Your task to perform on an android device: Open calendar and show me the third week of next month Image 0: 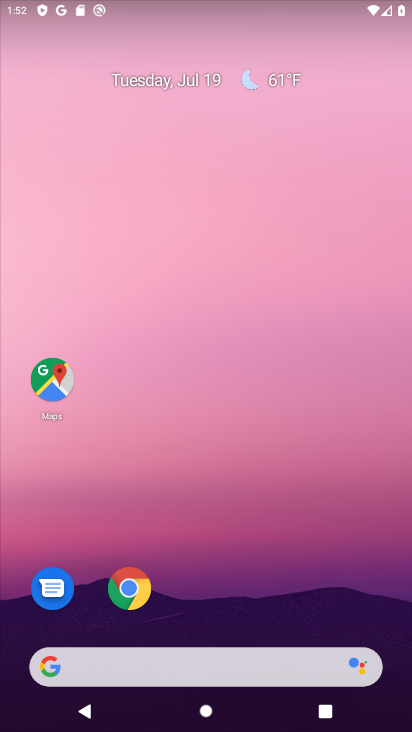
Step 0: drag from (211, 528) to (266, 0)
Your task to perform on an android device: Open calendar and show me the third week of next month Image 1: 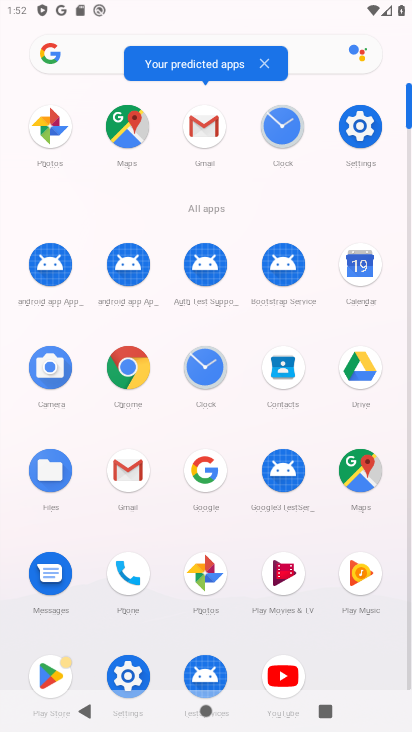
Step 1: click (351, 274)
Your task to perform on an android device: Open calendar and show me the third week of next month Image 2: 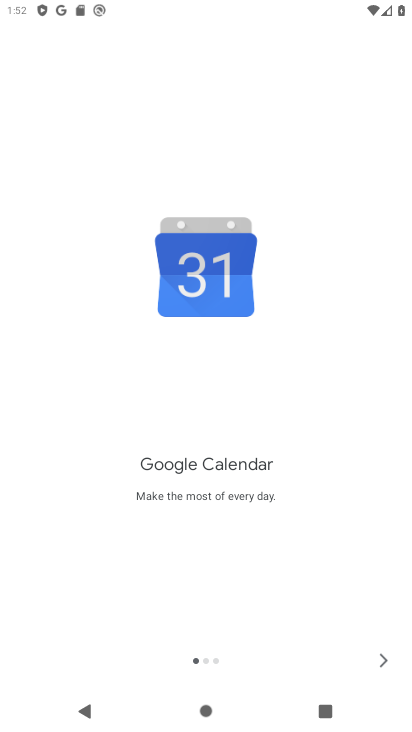
Step 2: click (390, 654)
Your task to perform on an android device: Open calendar and show me the third week of next month Image 3: 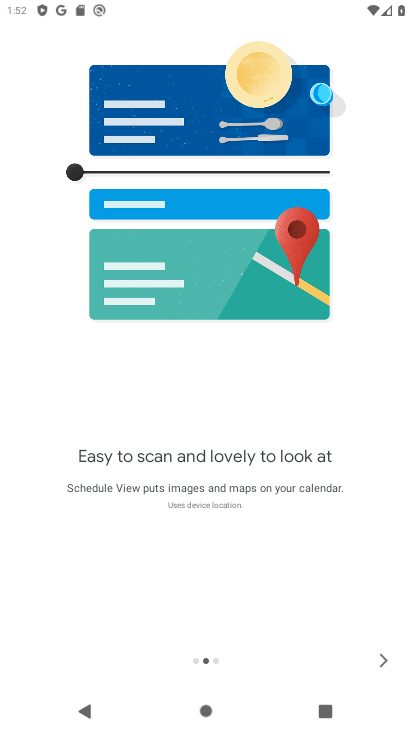
Step 3: click (381, 675)
Your task to perform on an android device: Open calendar and show me the third week of next month Image 4: 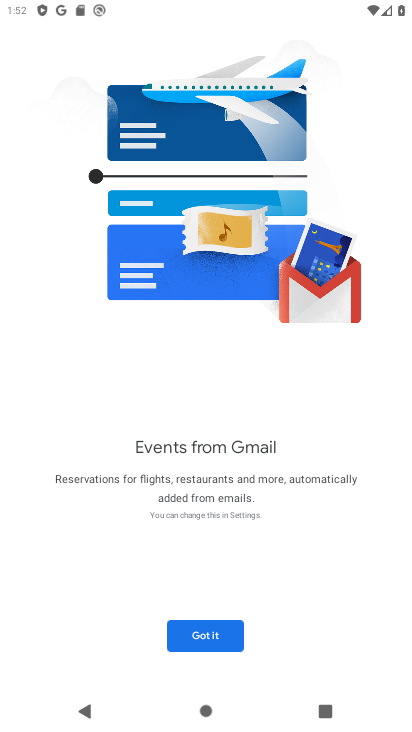
Step 4: click (207, 633)
Your task to perform on an android device: Open calendar and show me the third week of next month Image 5: 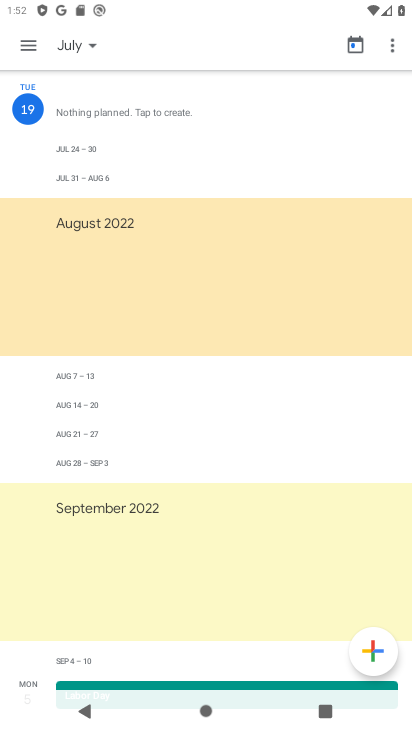
Step 5: click (87, 45)
Your task to perform on an android device: Open calendar and show me the third week of next month Image 6: 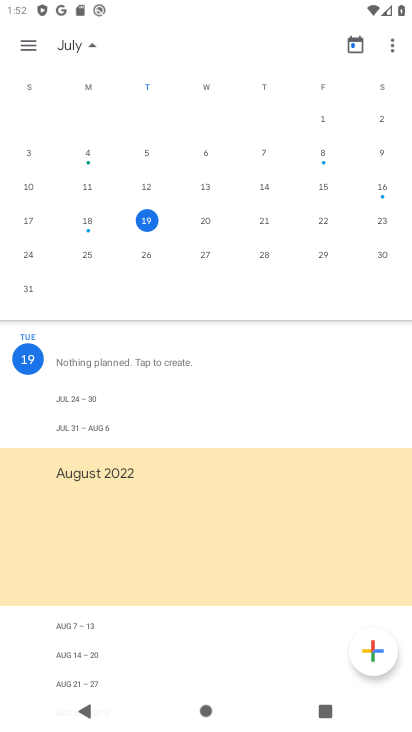
Step 6: drag from (380, 213) to (3, 225)
Your task to perform on an android device: Open calendar and show me the third week of next month Image 7: 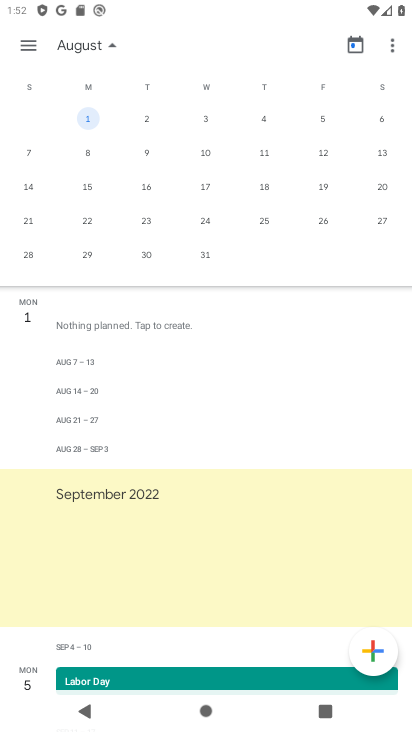
Step 7: click (90, 187)
Your task to perform on an android device: Open calendar and show me the third week of next month Image 8: 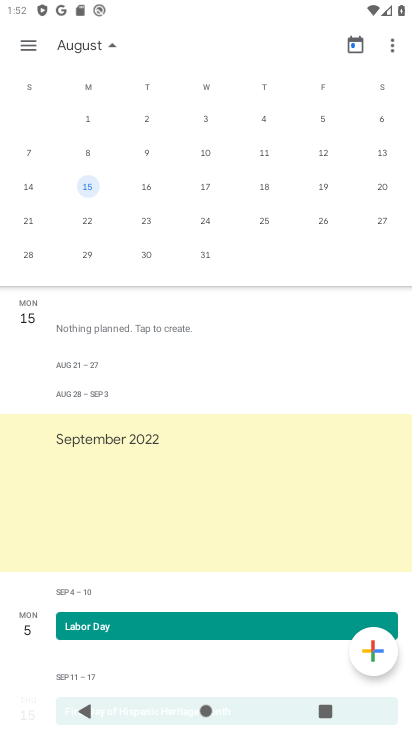
Step 8: task complete